Your task to perform on an android device: toggle show notifications on the lock screen Image 0: 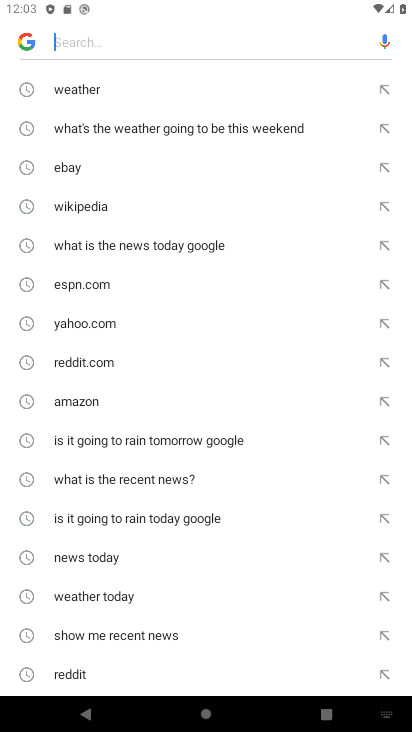
Step 0: press home button
Your task to perform on an android device: toggle show notifications on the lock screen Image 1: 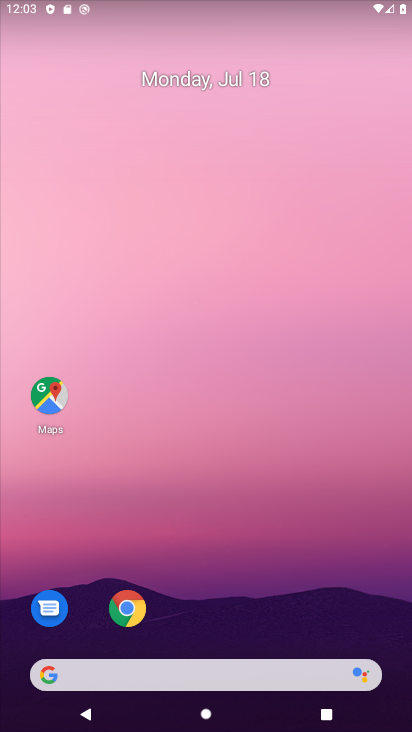
Step 1: drag from (387, 629) to (297, 207)
Your task to perform on an android device: toggle show notifications on the lock screen Image 2: 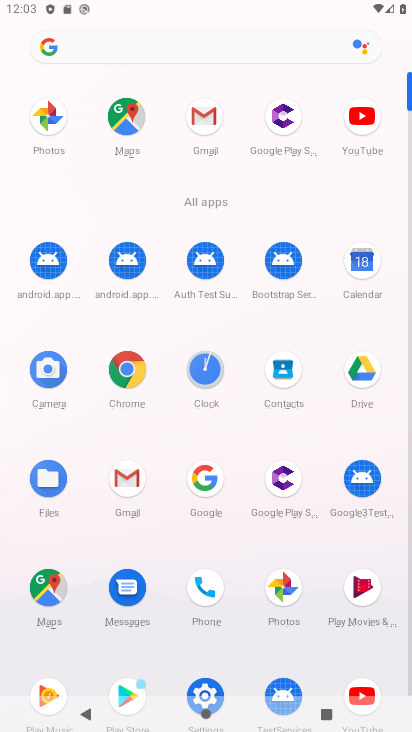
Step 2: click (198, 684)
Your task to perform on an android device: toggle show notifications on the lock screen Image 3: 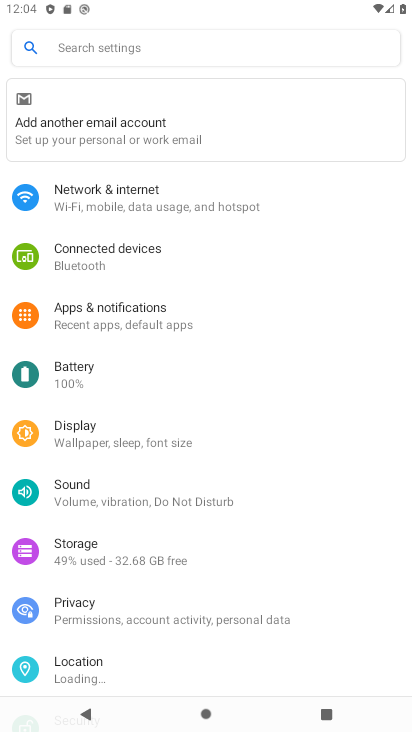
Step 3: click (182, 315)
Your task to perform on an android device: toggle show notifications on the lock screen Image 4: 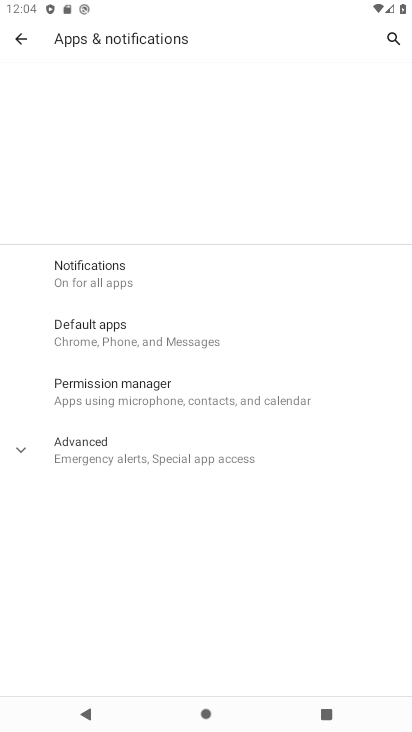
Step 4: click (144, 278)
Your task to perform on an android device: toggle show notifications on the lock screen Image 5: 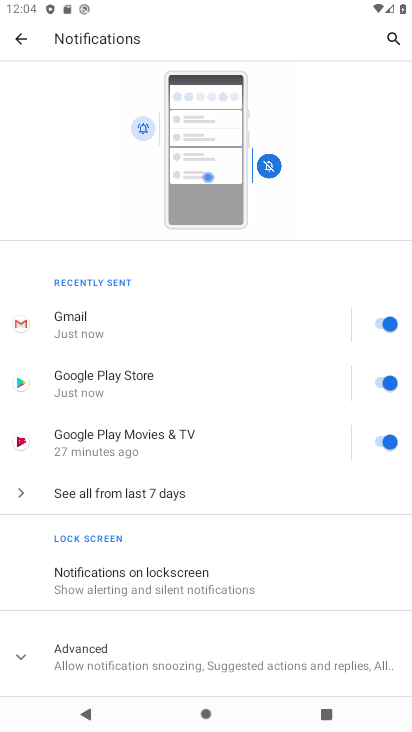
Step 5: click (212, 570)
Your task to perform on an android device: toggle show notifications on the lock screen Image 6: 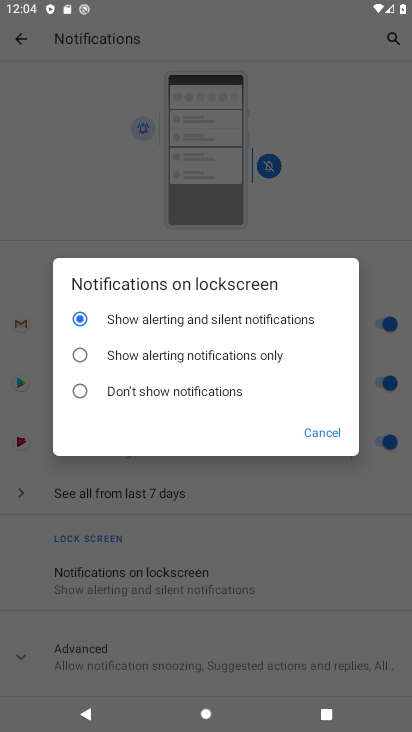
Step 6: click (275, 371)
Your task to perform on an android device: toggle show notifications on the lock screen Image 7: 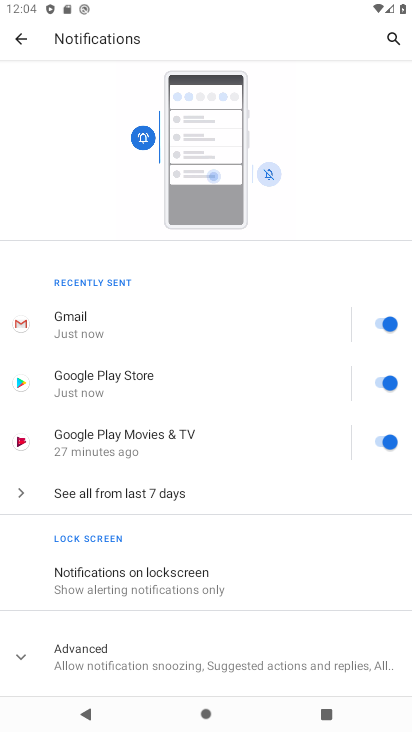
Step 7: task complete